Your task to perform on an android device: Turn on the flashlight Image 0: 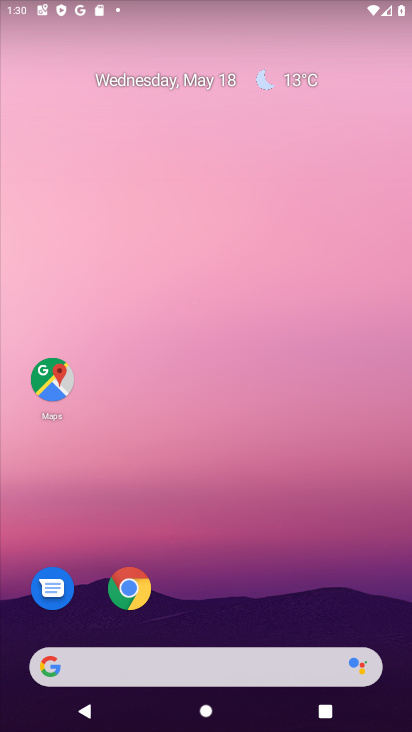
Step 0: drag from (197, 432) to (257, 158)
Your task to perform on an android device: Turn on the flashlight Image 1: 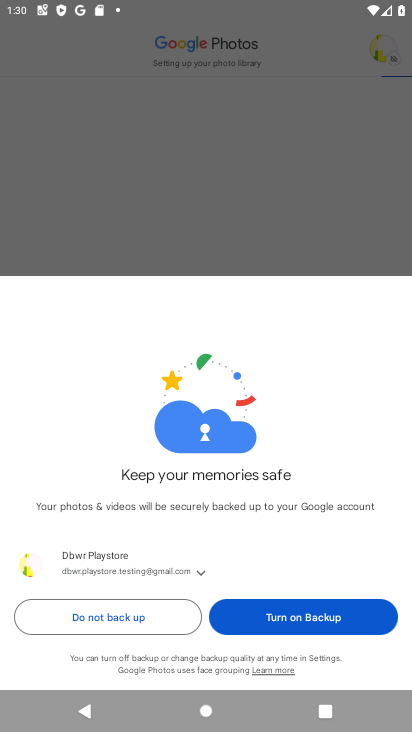
Step 1: press home button
Your task to perform on an android device: Turn on the flashlight Image 2: 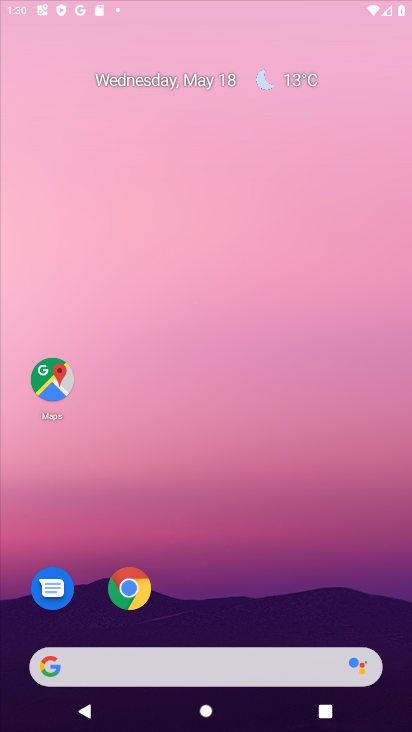
Step 2: drag from (226, 641) to (266, 74)
Your task to perform on an android device: Turn on the flashlight Image 3: 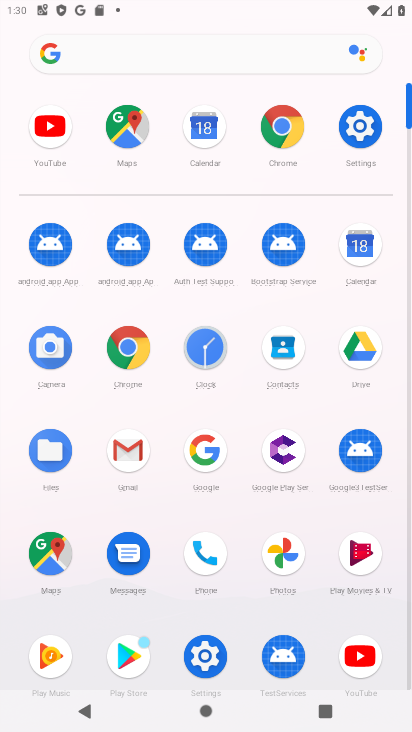
Step 3: click (369, 129)
Your task to perform on an android device: Turn on the flashlight Image 4: 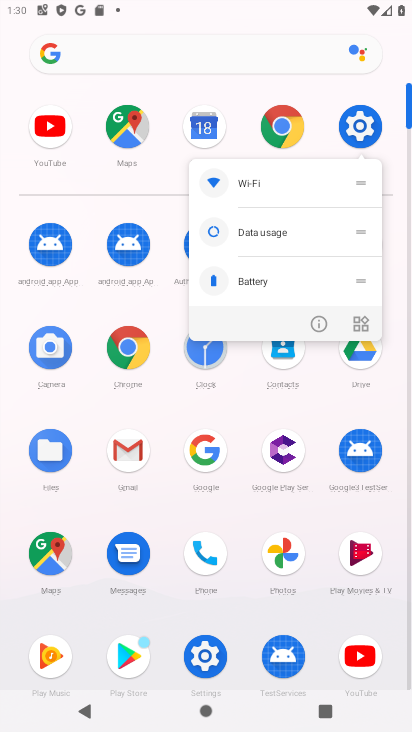
Step 4: click (313, 328)
Your task to perform on an android device: Turn on the flashlight Image 5: 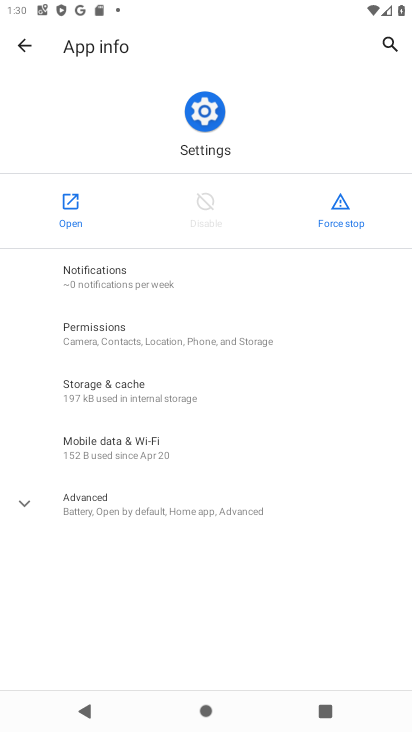
Step 5: click (85, 192)
Your task to perform on an android device: Turn on the flashlight Image 6: 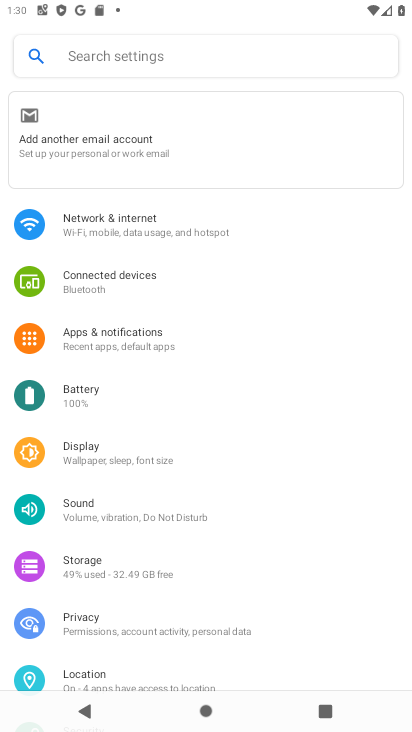
Step 6: click (218, 62)
Your task to perform on an android device: Turn on the flashlight Image 7: 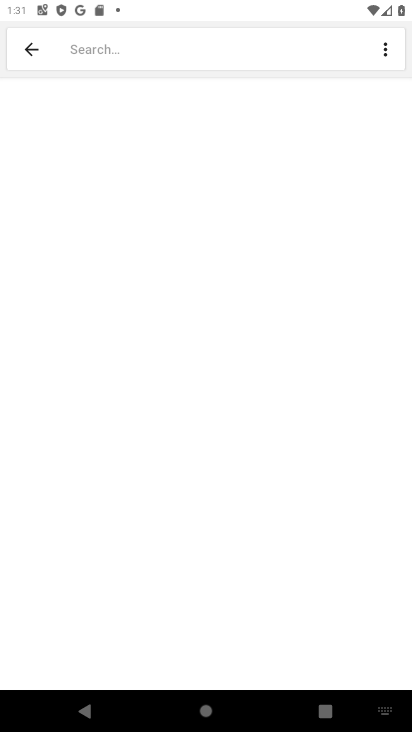
Step 7: type "flashlight"
Your task to perform on an android device: Turn on the flashlight Image 8: 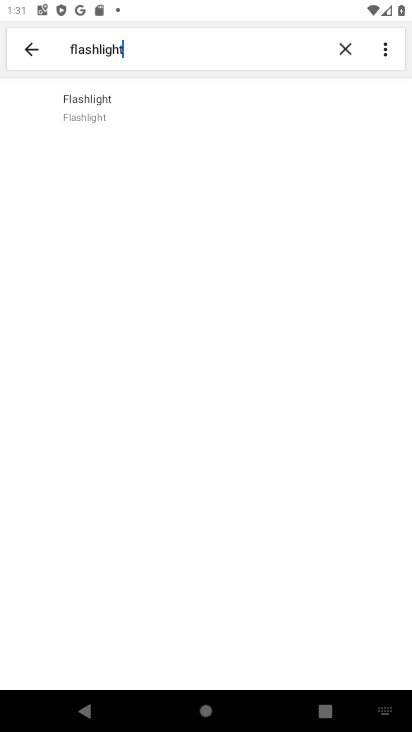
Step 8: click (125, 117)
Your task to perform on an android device: Turn on the flashlight Image 9: 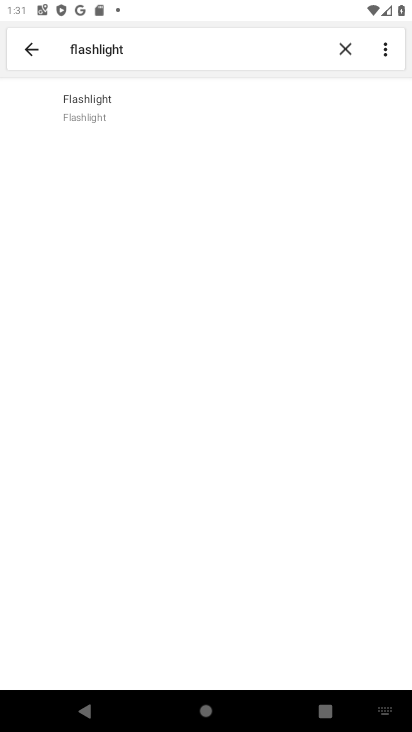
Step 9: click (125, 117)
Your task to perform on an android device: Turn on the flashlight Image 10: 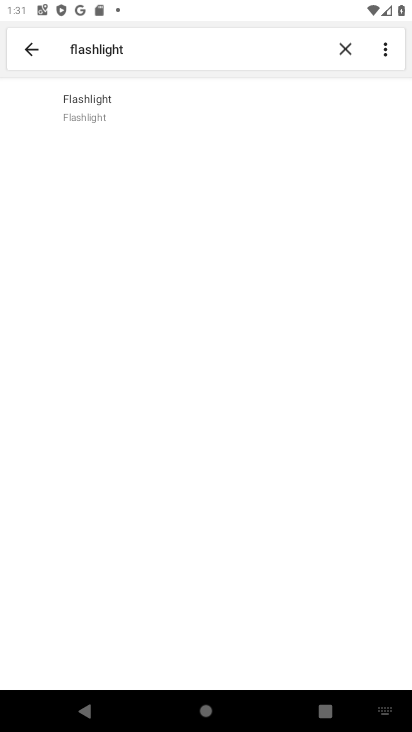
Step 10: task complete